Your task to perform on an android device: Open location settings Image 0: 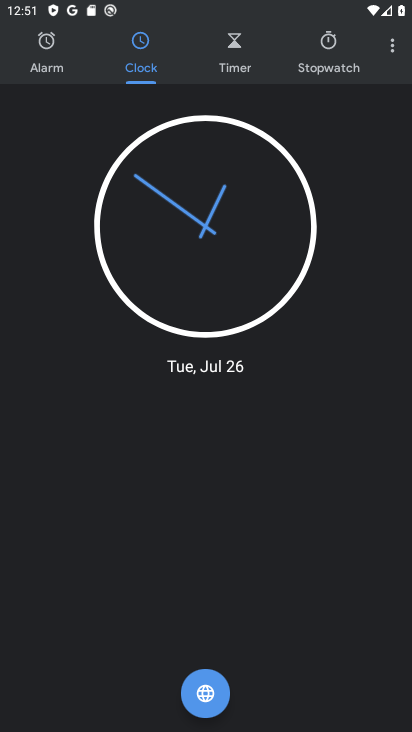
Step 0: press home button
Your task to perform on an android device: Open location settings Image 1: 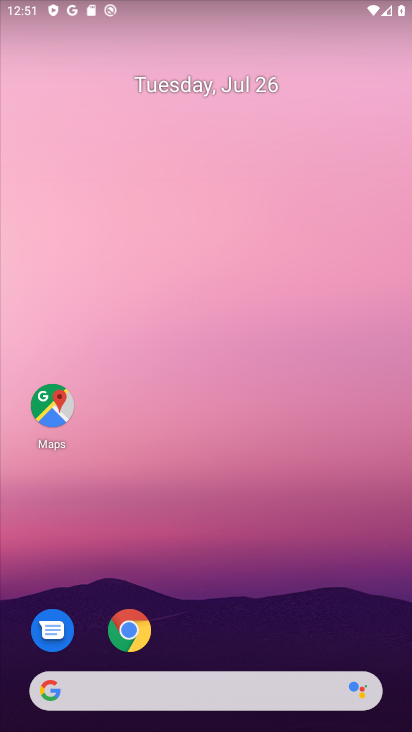
Step 1: drag from (251, 655) to (318, 26)
Your task to perform on an android device: Open location settings Image 2: 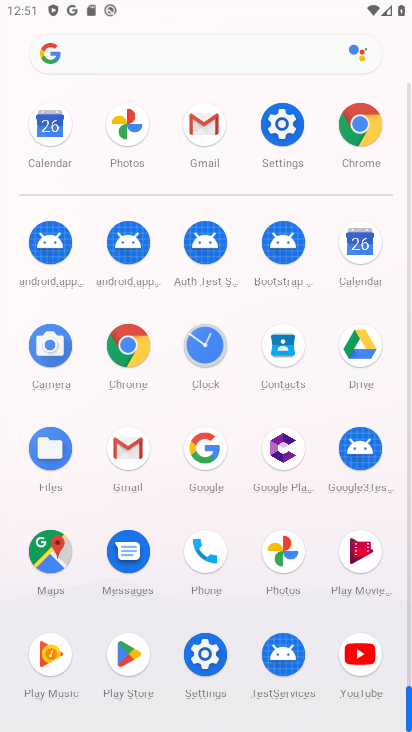
Step 2: click (278, 121)
Your task to perform on an android device: Open location settings Image 3: 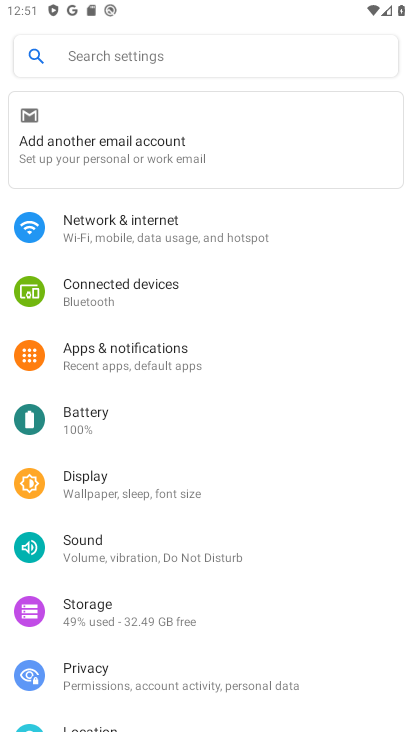
Step 3: drag from (131, 671) to (160, 192)
Your task to perform on an android device: Open location settings Image 4: 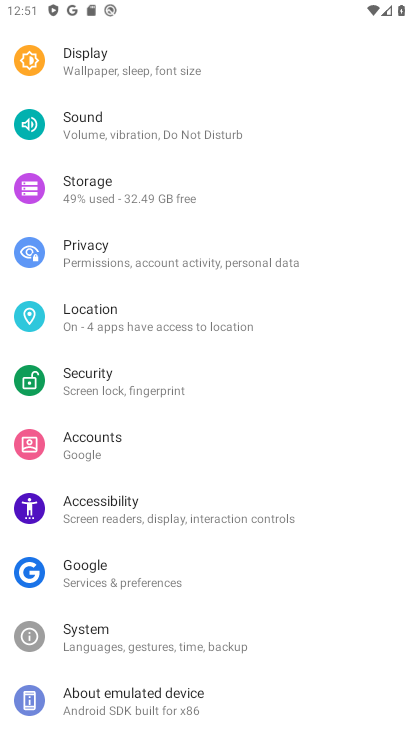
Step 4: click (86, 321)
Your task to perform on an android device: Open location settings Image 5: 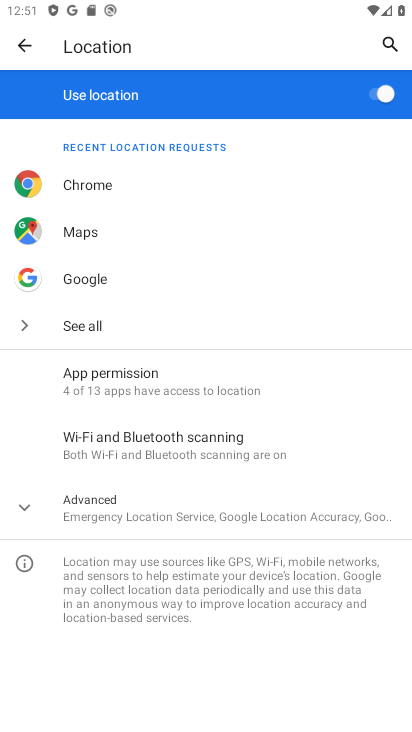
Step 5: task complete